Your task to perform on an android device: Open ESPN.com Image 0: 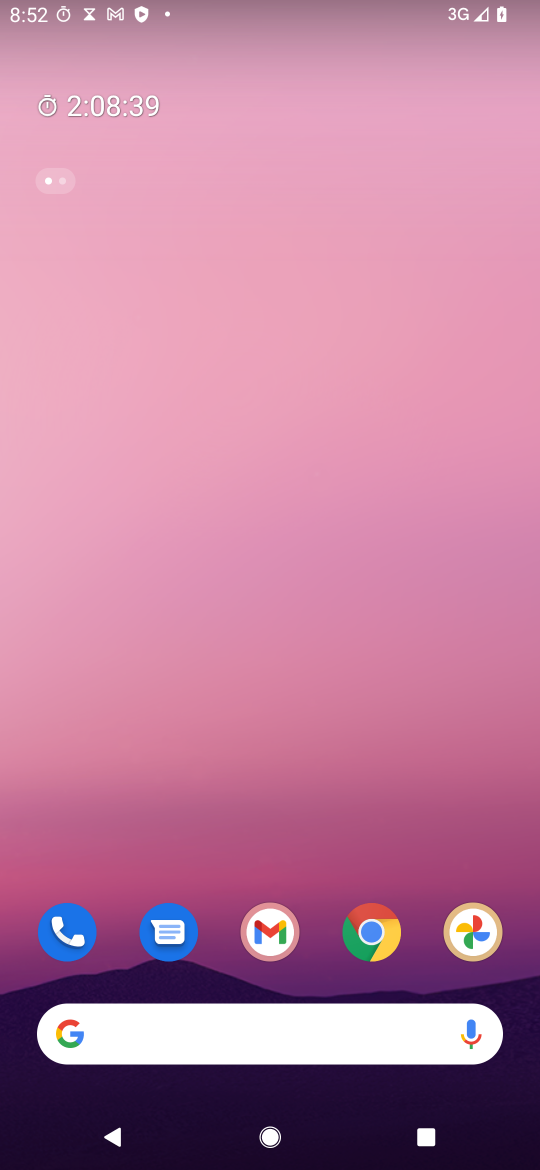
Step 0: drag from (336, 824) to (322, 16)
Your task to perform on an android device: Open ESPN.com Image 1: 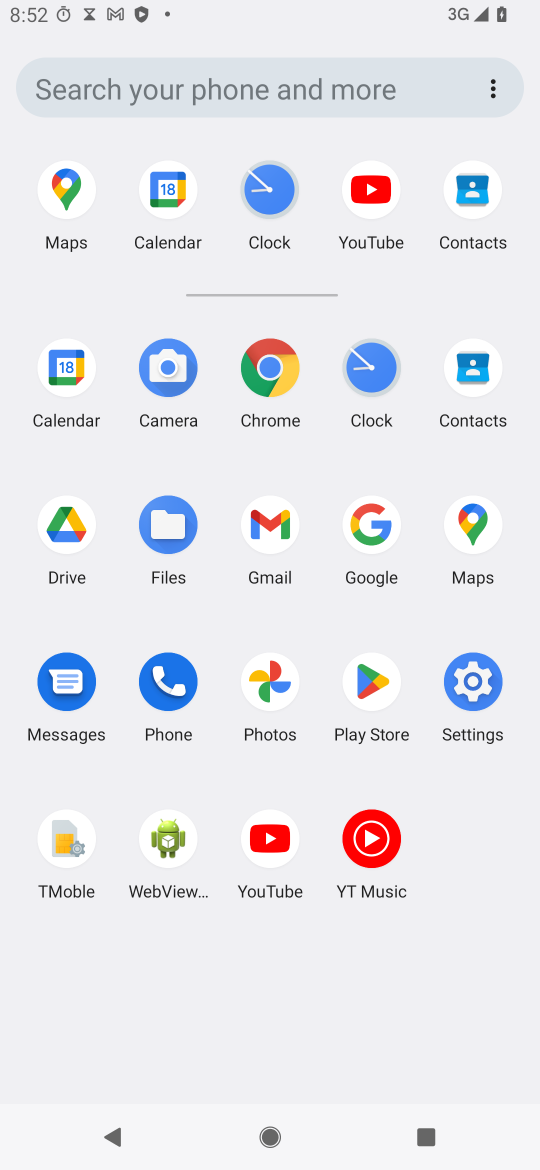
Step 1: click (275, 359)
Your task to perform on an android device: Open ESPN.com Image 2: 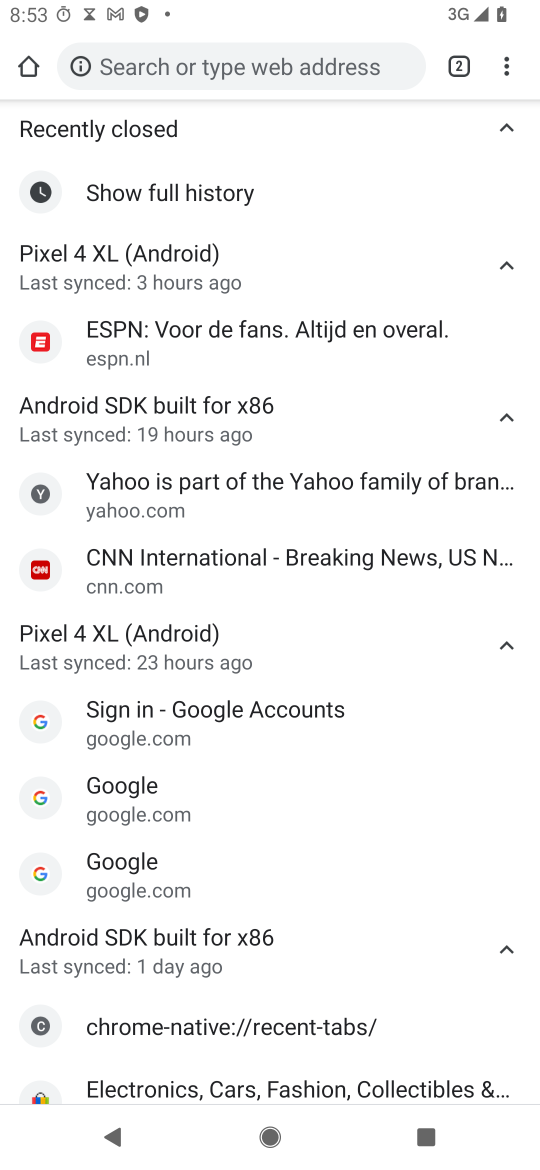
Step 2: click (225, 62)
Your task to perform on an android device: Open ESPN.com Image 3: 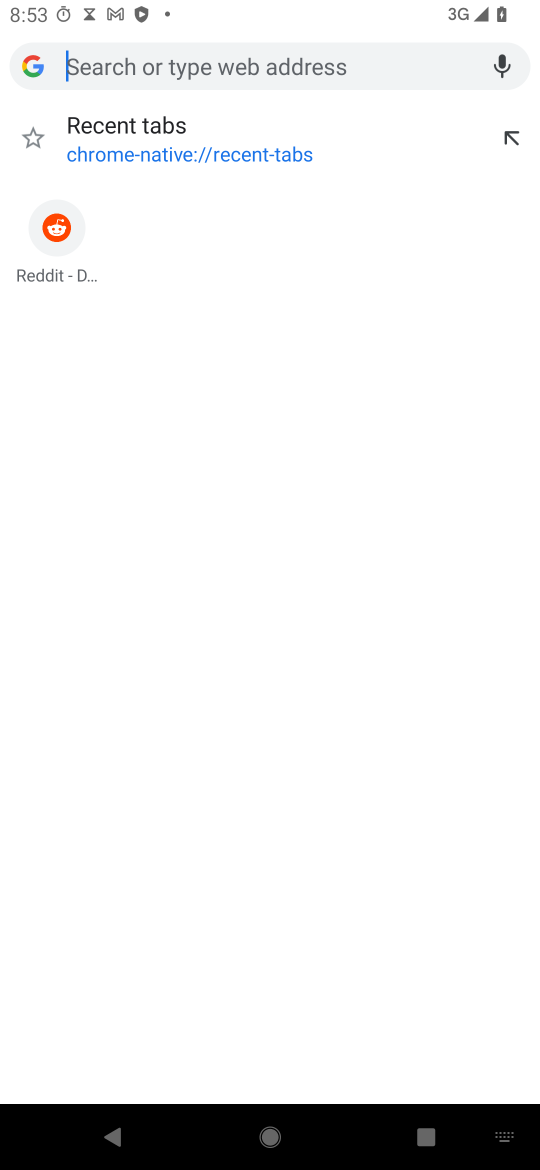
Step 3: type " ESPN.com"
Your task to perform on an android device: Open ESPN.com Image 4: 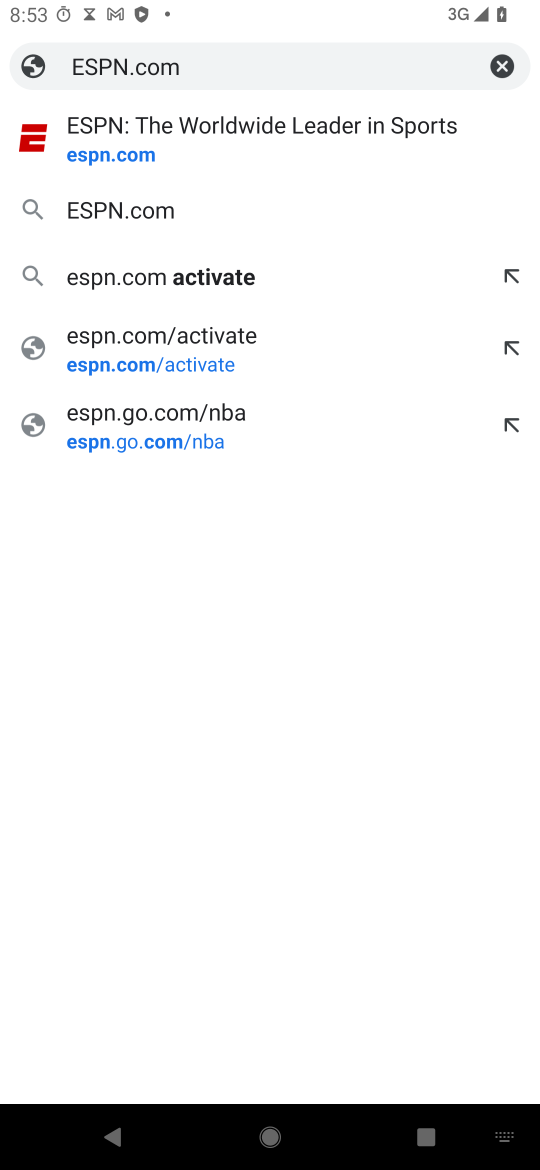
Step 4: click (124, 152)
Your task to perform on an android device: Open ESPN.com Image 5: 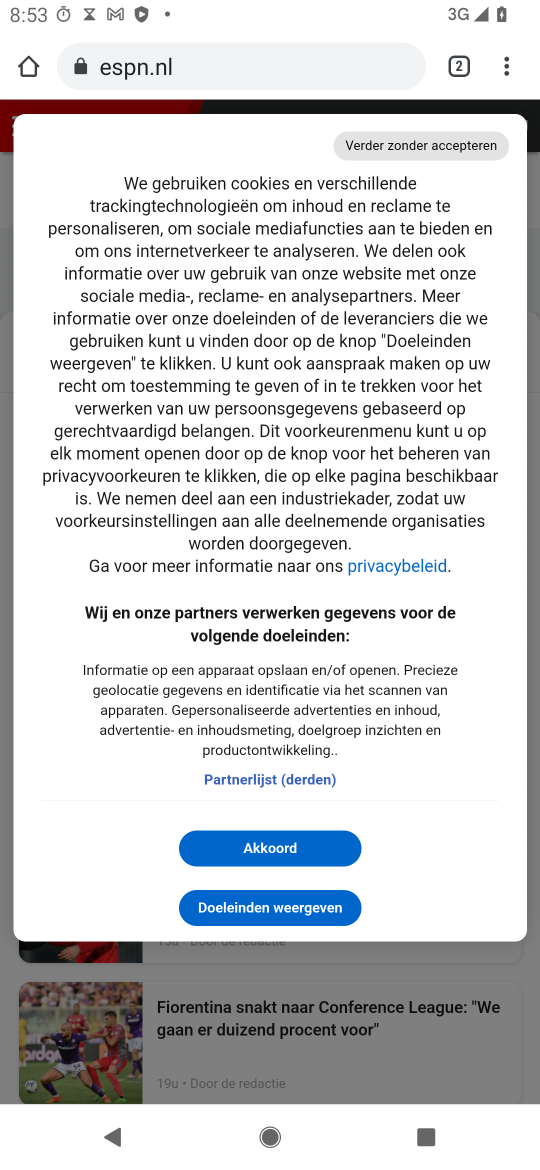
Step 5: task complete